Your task to perform on an android device: Open the web browser Image 0: 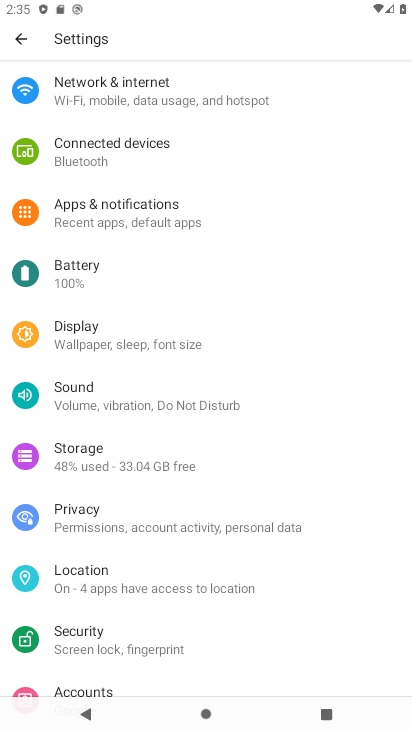
Step 0: press home button
Your task to perform on an android device: Open the web browser Image 1: 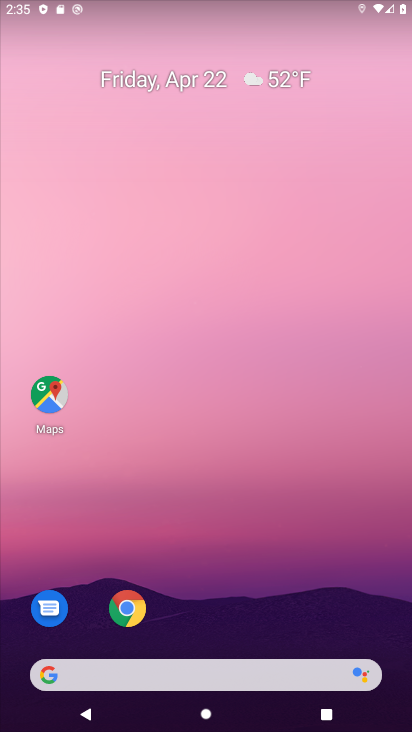
Step 1: drag from (261, 621) to (219, 132)
Your task to perform on an android device: Open the web browser Image 2: 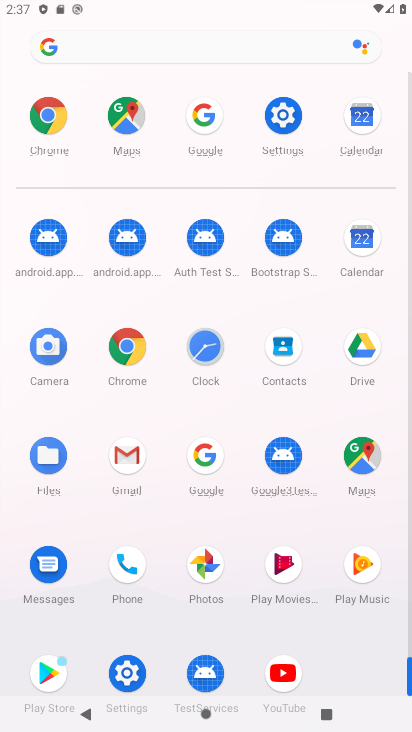
Step 2: click (200, 453)
Your task to perform on an android device: Open the web browser Image 3: 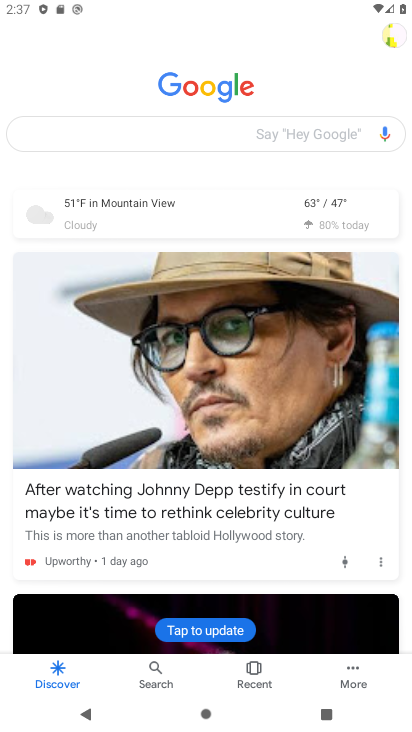
Step 3: task complete